Your task to perform on an android device: Go to Google maps Image 0: 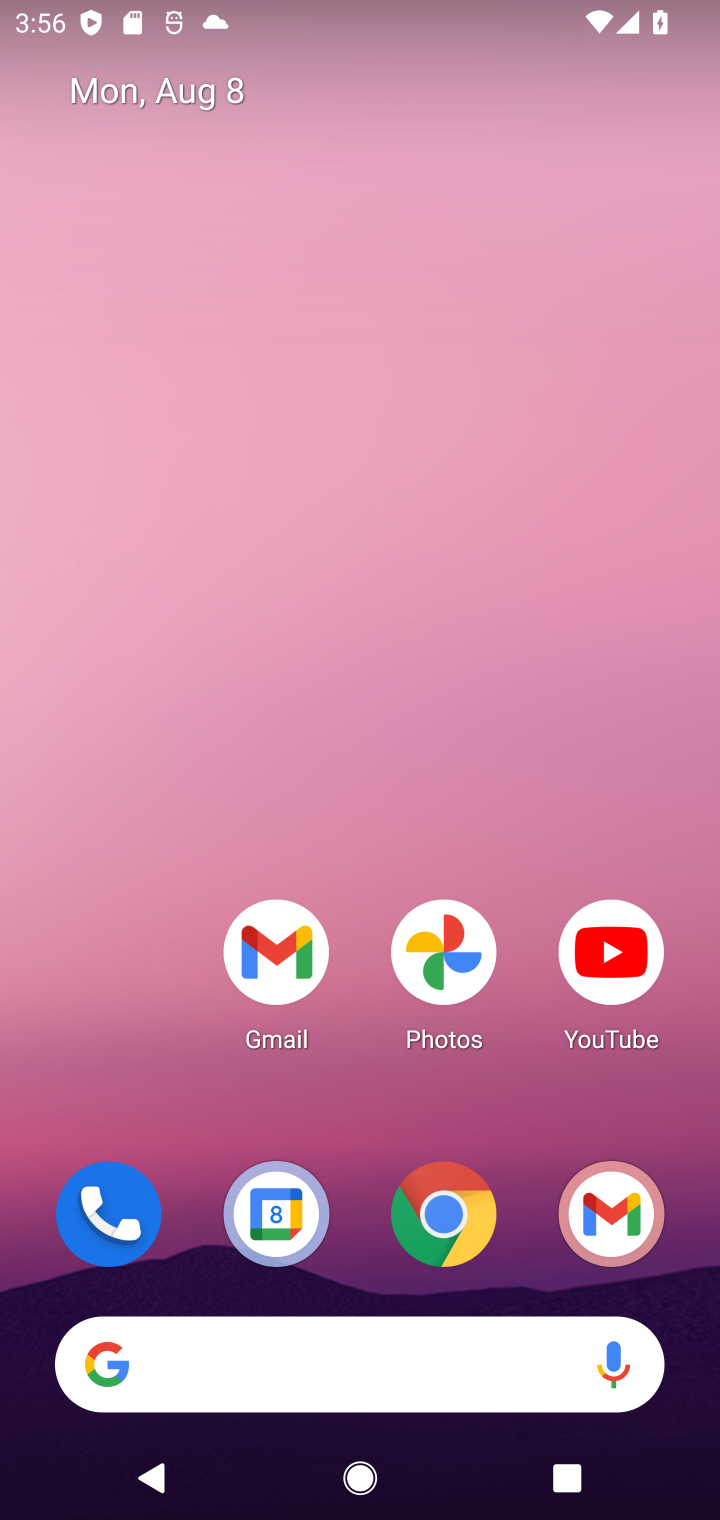
Step 0: drag from (353, 1293) to (445, 27)
Your task to perform on an android device: Go to Google maps Image 1: 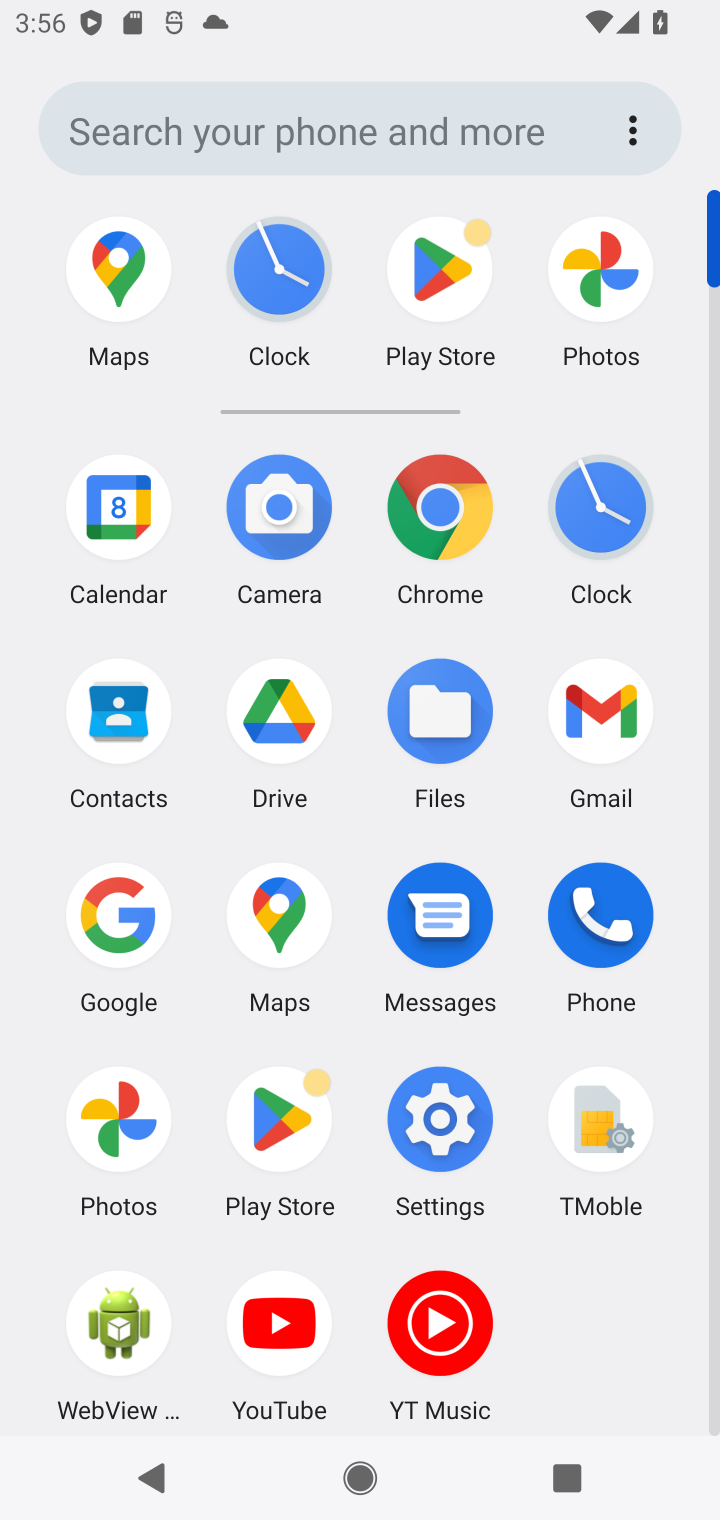
Step 1: click (271, 889)
Your task to perform on an android device: Go to Google maps Image 2: 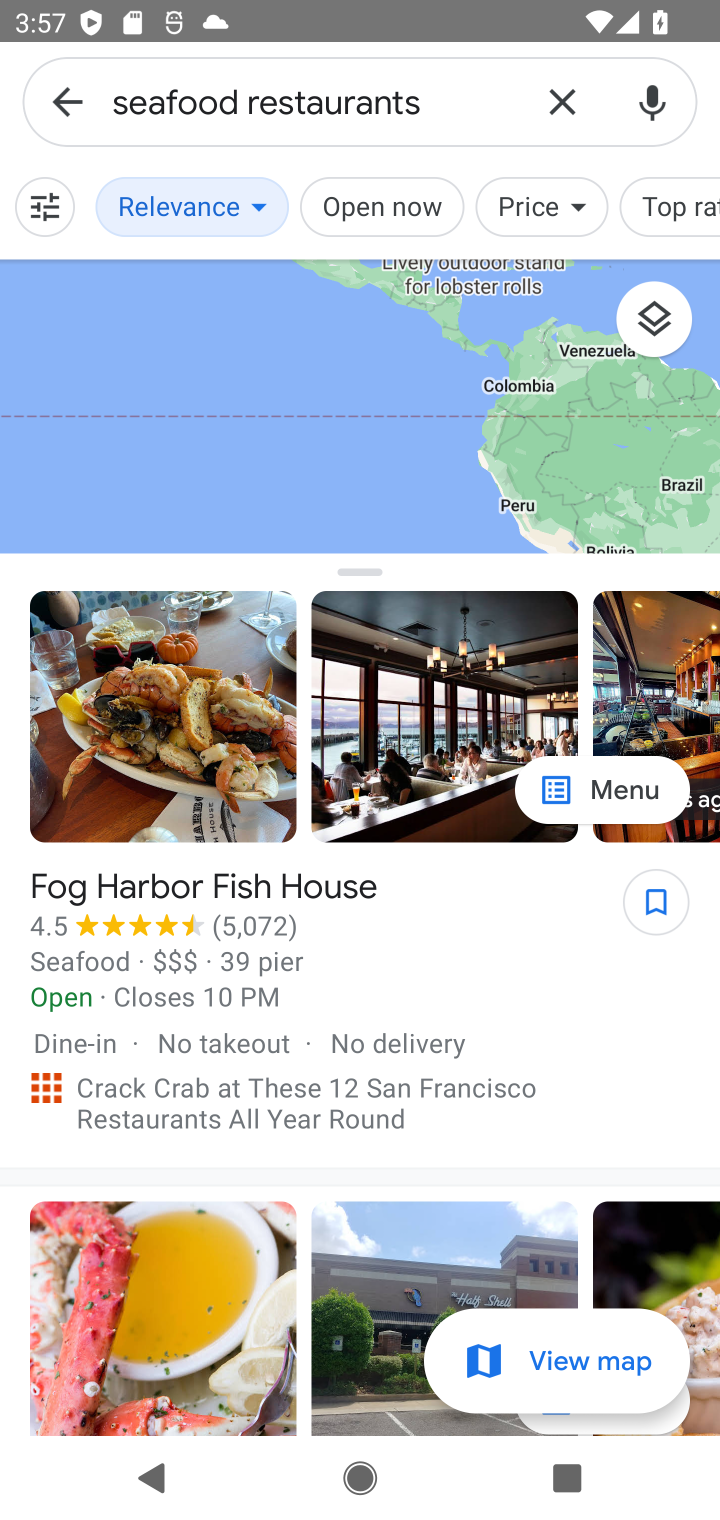
Step 2: task complete